Your task to perform on an android device: change the upload size in google photos Image 0: 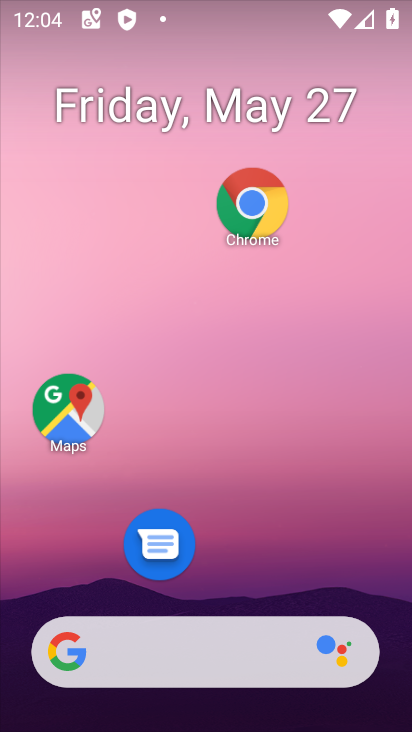
Step 0: drag from (210, 604) to (217, 77)
Your task to perform on an android device: change the upload size in google photos Image 1: 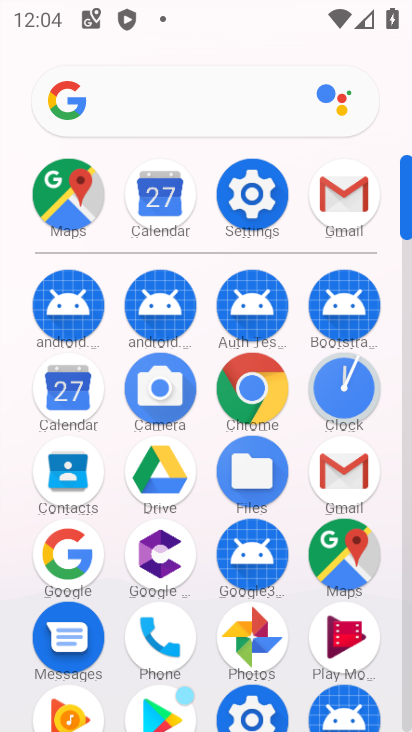
Step 1: click (247, 637)
Your task to perform on an android device: change the upload size in google photos Image 2: 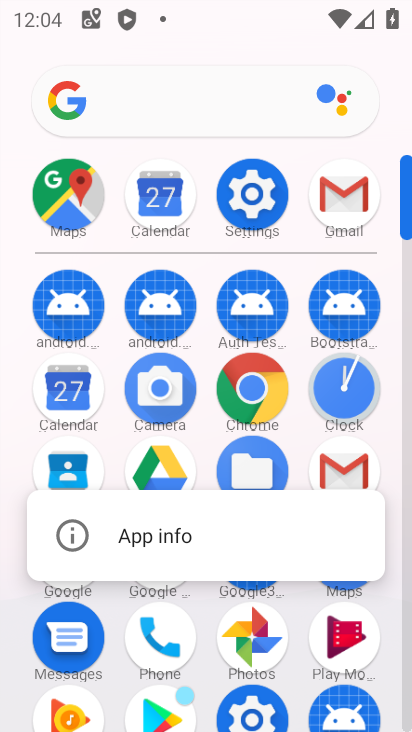
Step 2: click (181, 547)
Your task to perform on an android device: change the upload size in google photos Image 3: 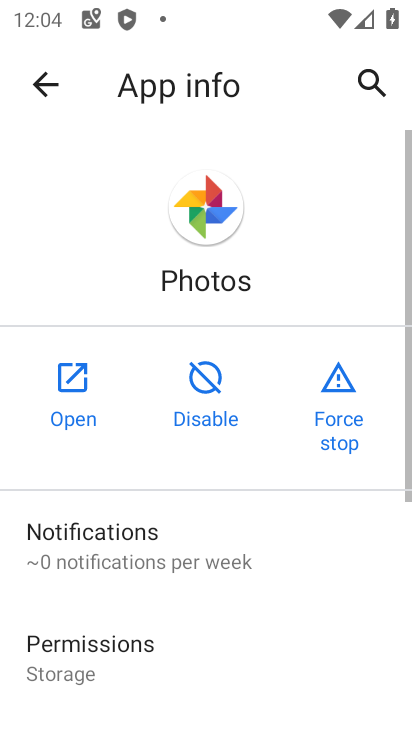
Step 3: click (74, 360)
Your task to perform on an android device: change the upload size in google photos Image 4: 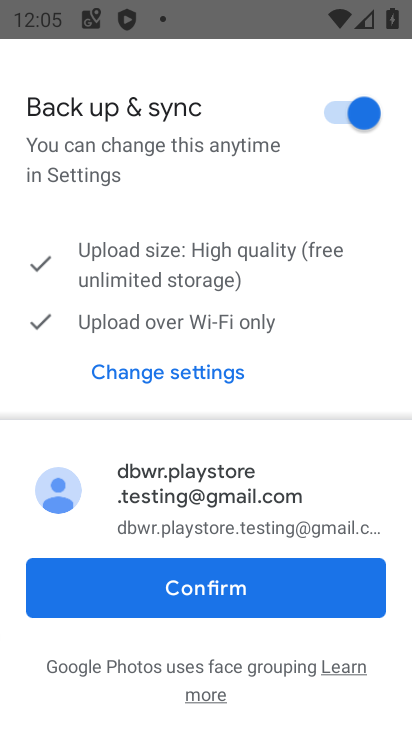
Step 4: click (195, 557)
Your task to perform on an android device: change the upload size in google photos Image 5: 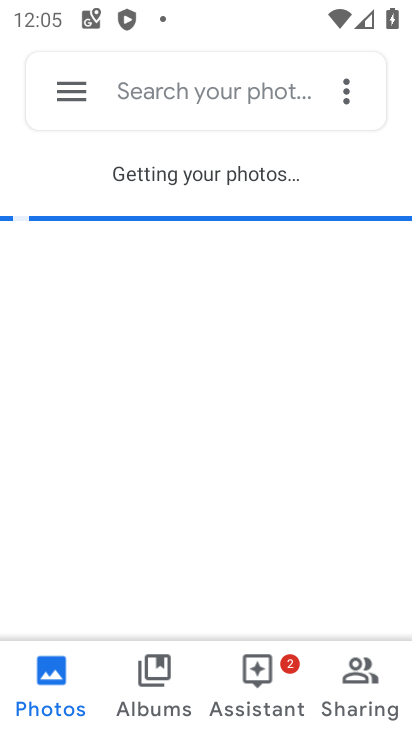
Step 5: click (65, 93)
Your task to perform on an android device: change the upload size in google photos Image 6: 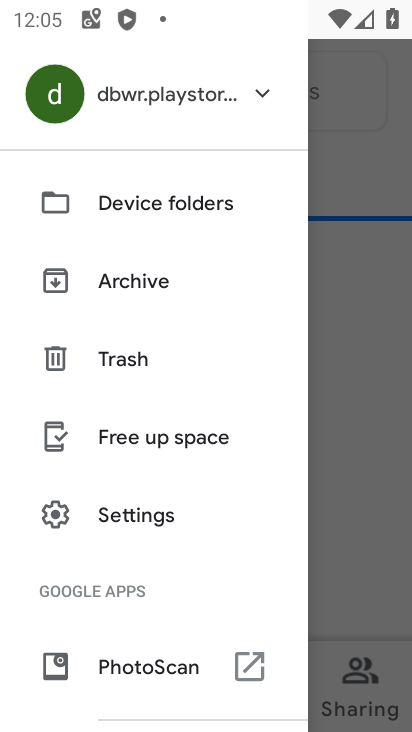
Step 6: click (139, 534)
Your task to perform on an android device: change the upload size in google photos Image 7: 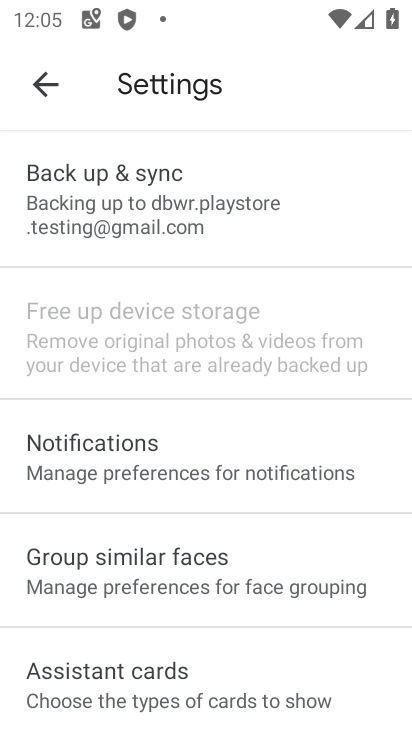
Step 7: click (122, 214)
Your task to perform on an android device: change the upload size in google photos Image 8: 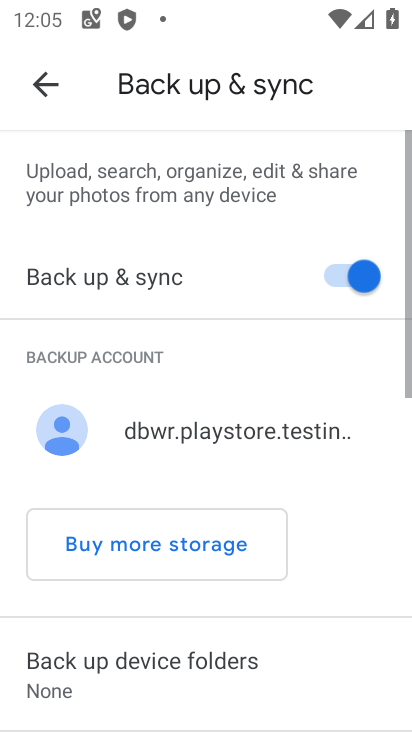
Step 8: drag from (160, 451) to (138, 21)
Your task to perform on an android device: change the upload size in google photos Image 9: 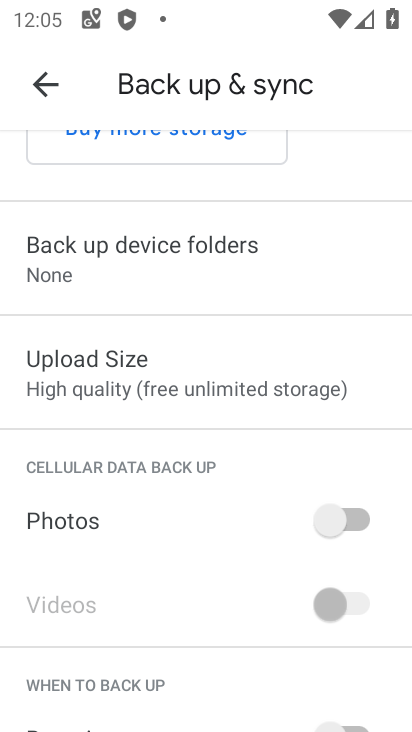
Step 9: click (209, 371)
Your task to perform on an android device: change the upload size in google photos Image 10: 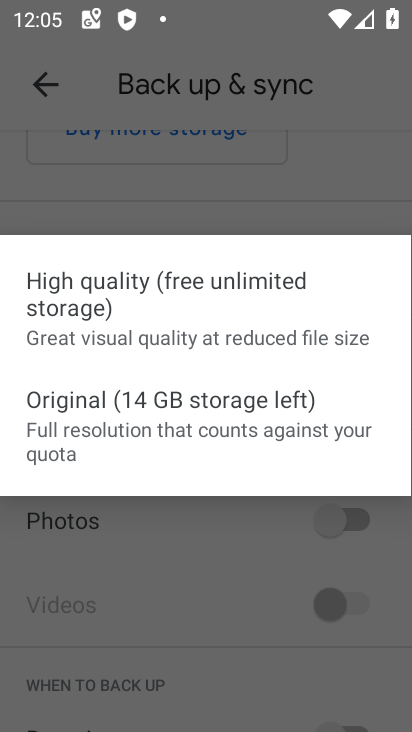
Step 10: click (159, 309)
Your task to perform on an android device: change the upload size in google photos Image 11: 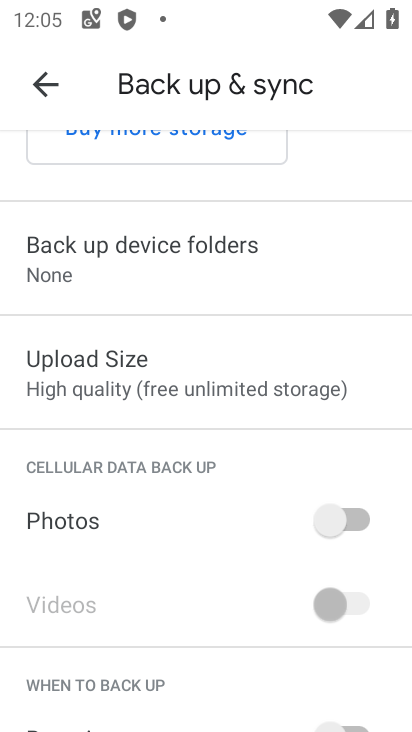
Step 11: task complete